Your task to perform on an android device: Search for sushi restaurants on Maps Image 0: 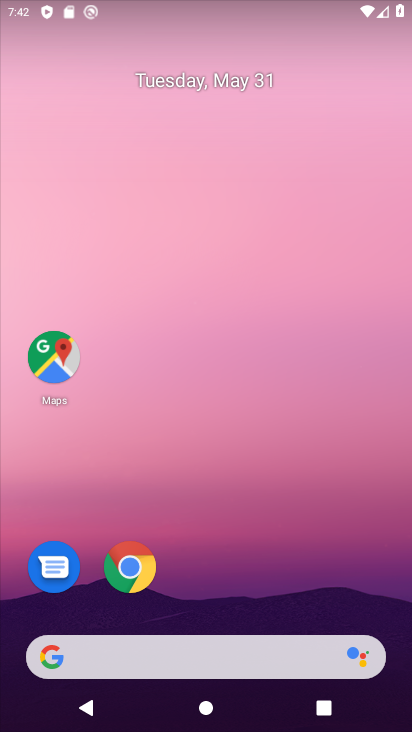
Step 0: drag from (317, 696) to (221, 65)
Your task to perform on an android device: Search for sushi restaurants on Maps Image 1: 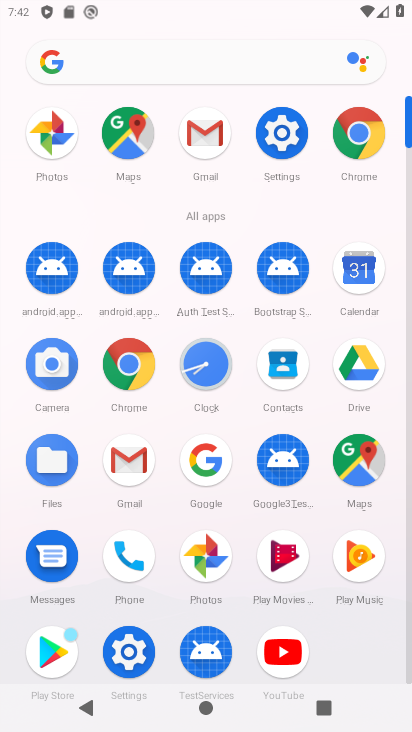
Step 1: click (345, 457)
Your task to perform on an android device: Search for sushi restaurants on Maps Image 2: 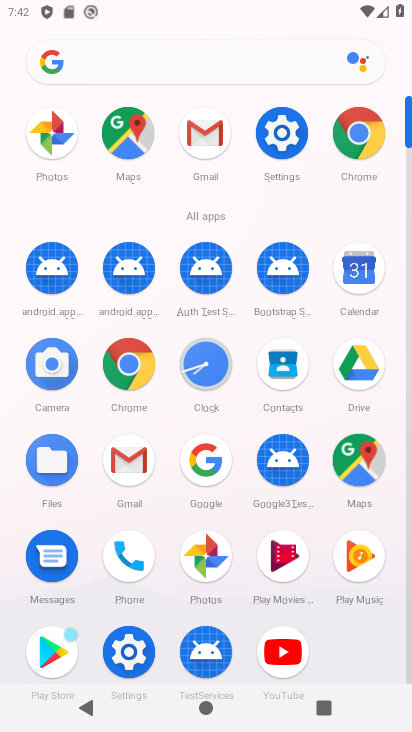
Step 2: click (346, 458)
Your task to perform on an android device: Search for sushi restaurants on Maps Image 3: 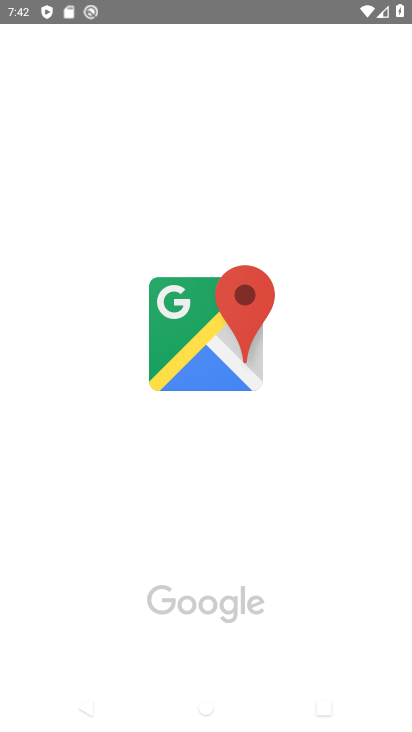
Step 3: click (349, 462)
Your task to perform on an android device: Search for sushi restaurants on Maps Image 4: 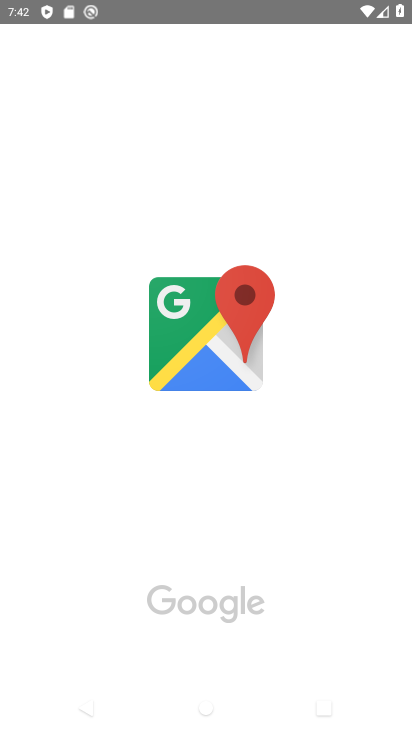
Step 4: click (349, 462)
Your task to perform on an android device: Search for sushi restaurants on Maps Image 5: 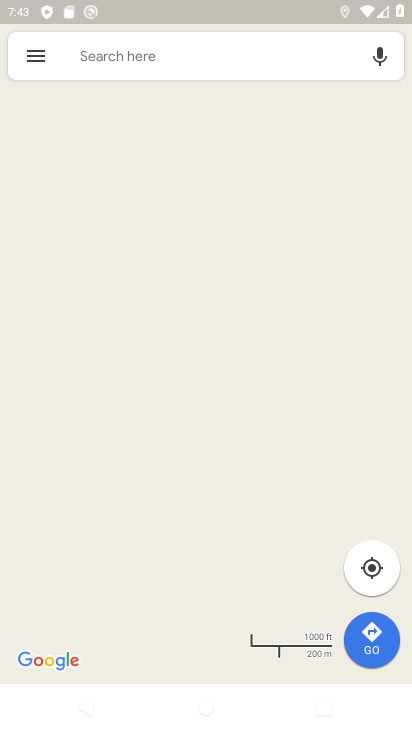
Step 5: click (94, 44)
Your task to perform on an android device: Search for sushi restaurants on Maps Image 6: 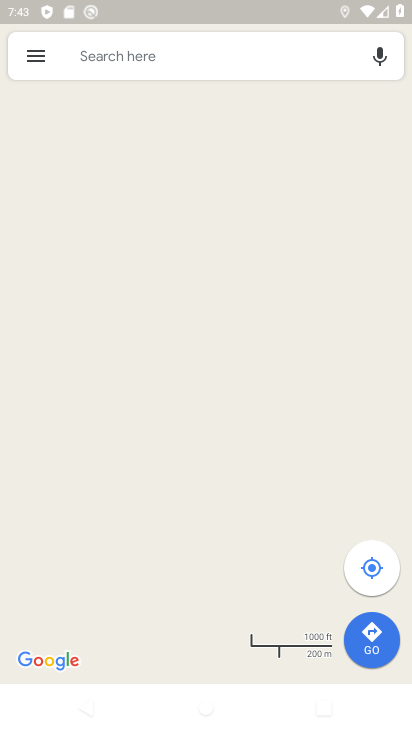
Step 6: click (102, 55)
Your task to perform on an android device: Search for sushi restaurants on Maps Image 7: 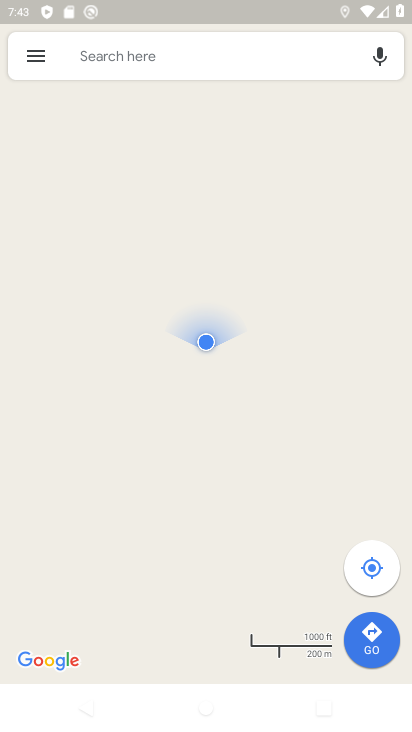
Step 7: click (95, 45)
Your task to perform on an android device: Search for sushi restaurants on Maps Image 8: 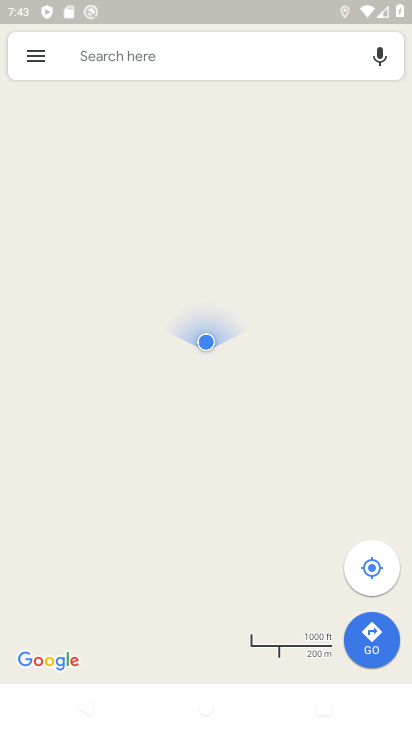
Step 8: click (94, 48)
Your task to perform on an android device: Search for sushi restaurants on Maps Image 9: 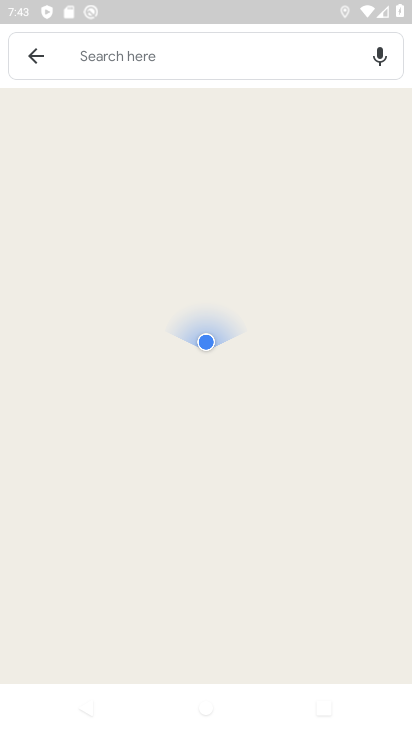
Step 9: click (94, 49)
Your task to perform on an android device: Search for sushi restaurants on Maps Image 10: 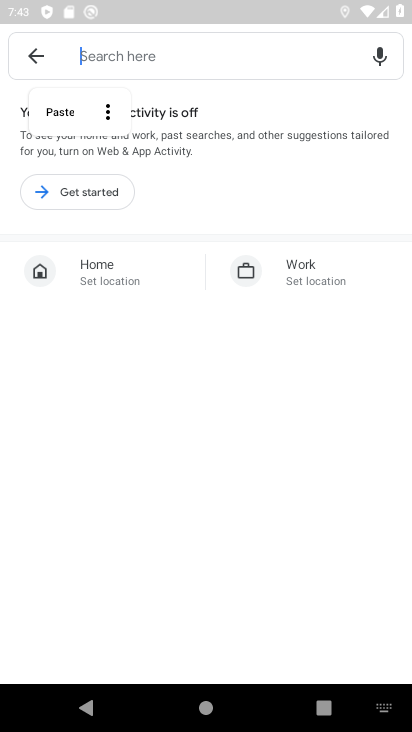
Step 10: type "sushi restaurants"
Your task to perform on an android device: Search for sushi restaurants on Maps Image 11: 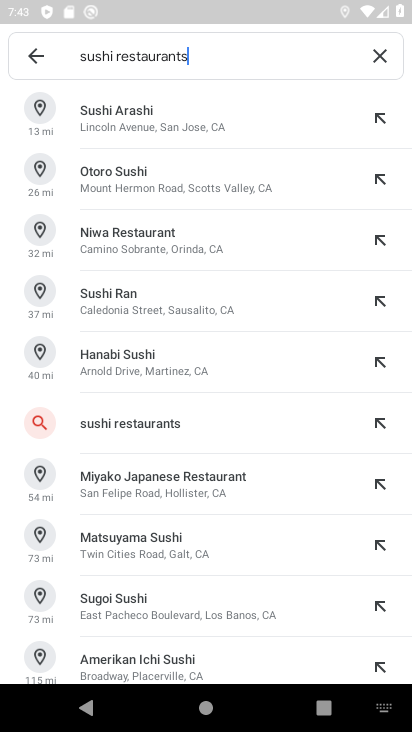
Step 11: click (137, 414)
Your task to perform on an android device: Search for sushi restaurants on Maps Image 12: 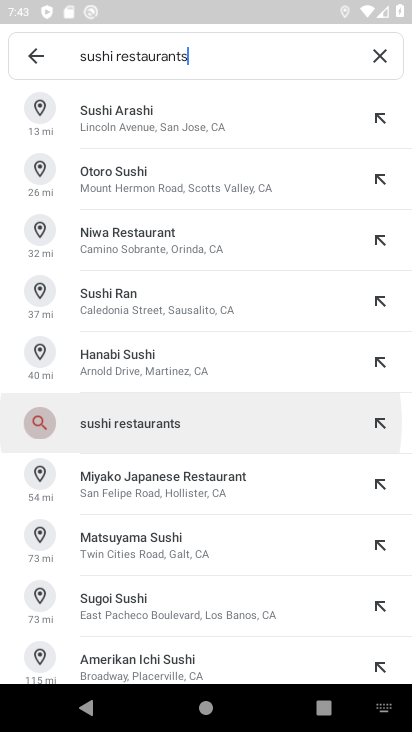
Step 12: click (133, 425)
Your task to perform on an android device: Search for sushi restaurants on Maps Image 13: 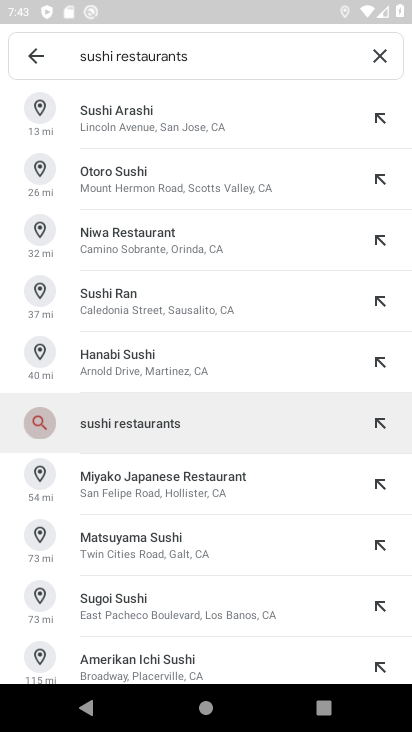
Step 13: click (149, 429)
Your task to perform on an android device: Search for sushi restaurants on Maps Image 14: 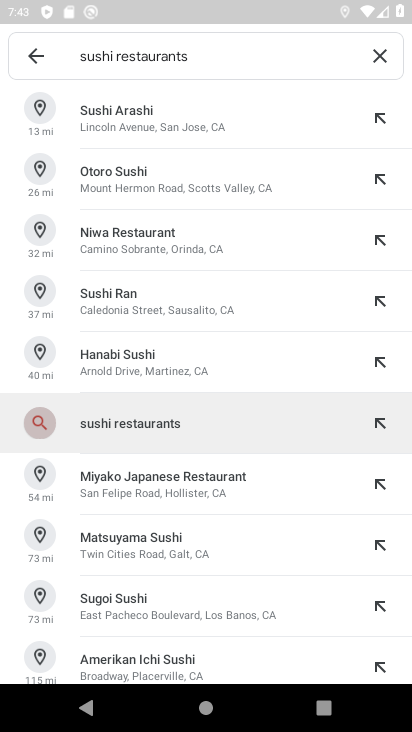
Step 14: click (149, 429)
Your task to perform on an android device: Search for sushi restaurants on Maps Image 15: 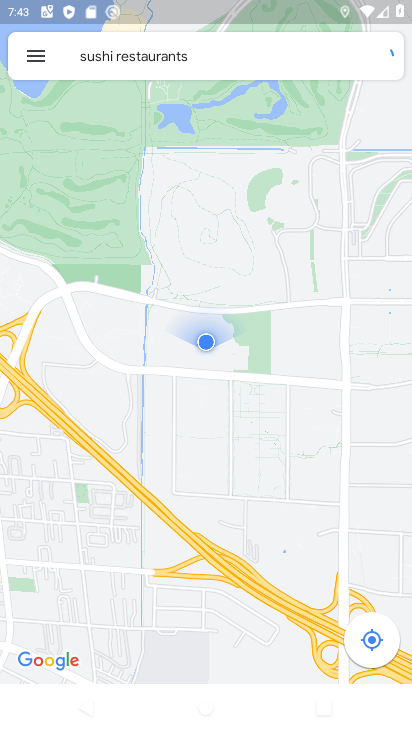
Step 15: task complete